Your task to perform on an android device: What is the recent news? Image 0: 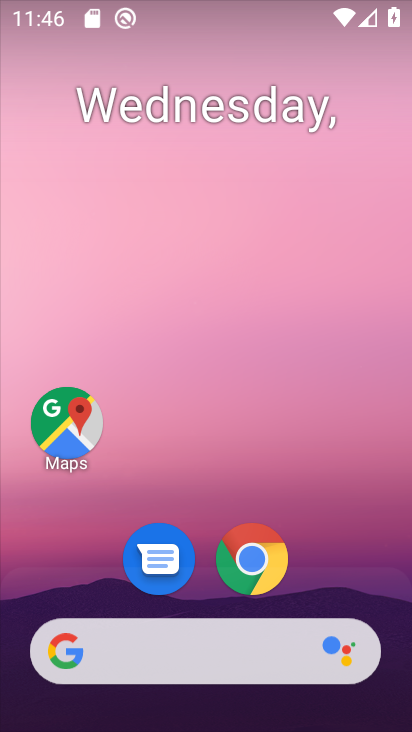
Step 0: drag from (4, 332) to (331, 297)
Your task to perform on an android device: What is the recent news? Image 1: 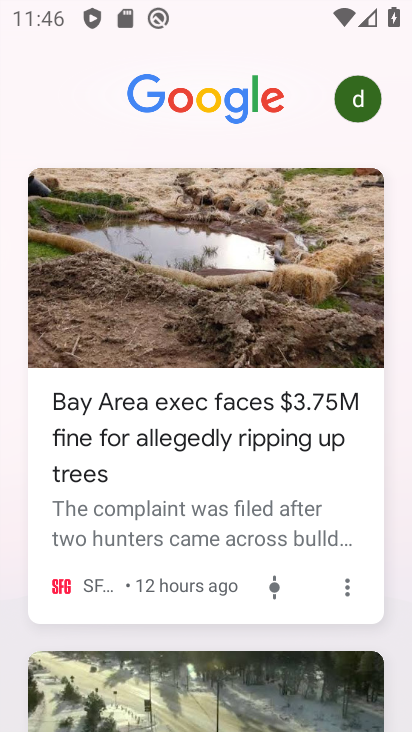
Step 1: task complete